Your task to perform on an android device: Open Android settings Image 0: 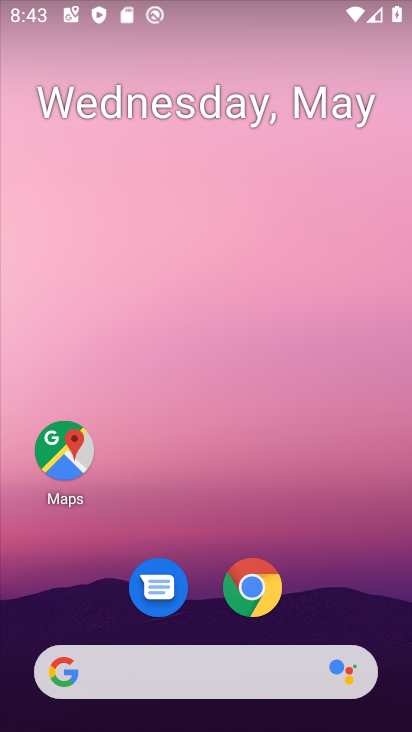
Step 0: drag from (381, 612) to (325, 74)
Your task to perform on an android device: Open Android settings Image 1: 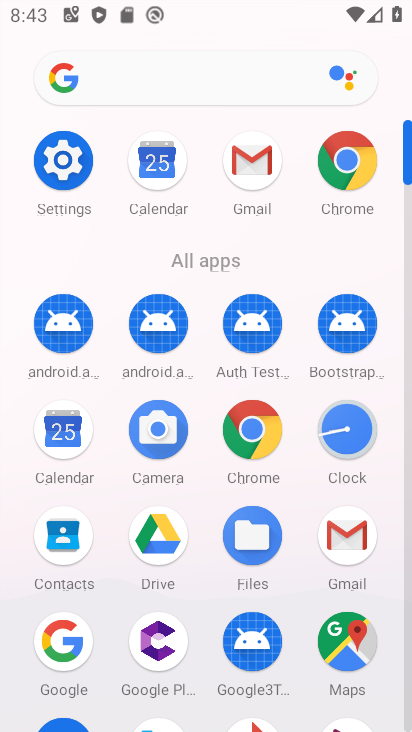
Step 1: click (409, 708)
Your task to perform on an android device: Open Android settings Image 2: 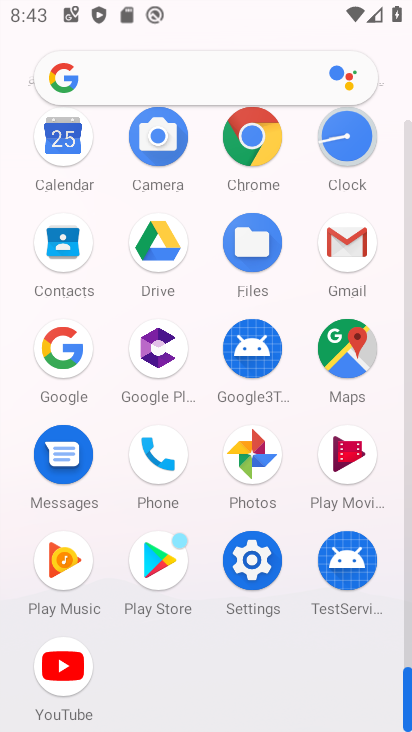
Step 2: click (253, 560)
Your task to perform on an android device: Open Android settings Image 3: 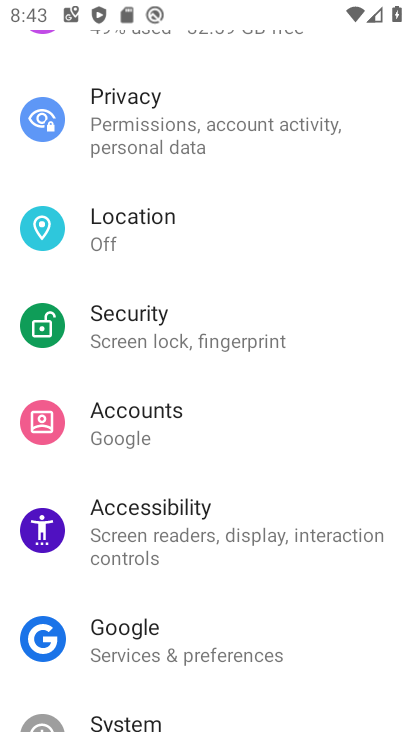
Step 3: drag from (303, 672) to (334, 139)
Your task to perform on an android device: Open Android settings Image 4: 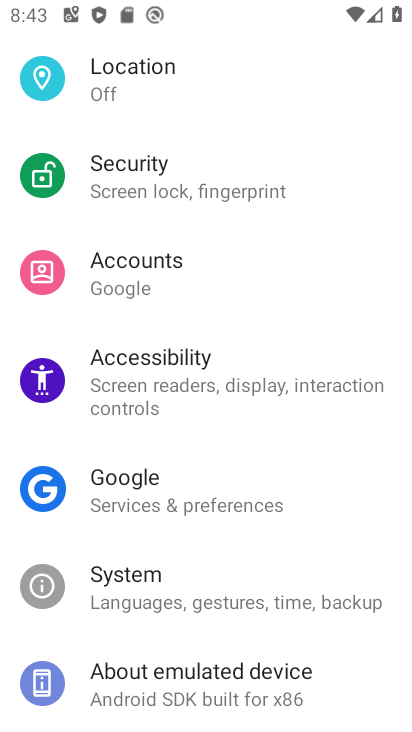
Step 4: click (144, 679)
Your task to perform on an android device: Open Android settings Image 5: 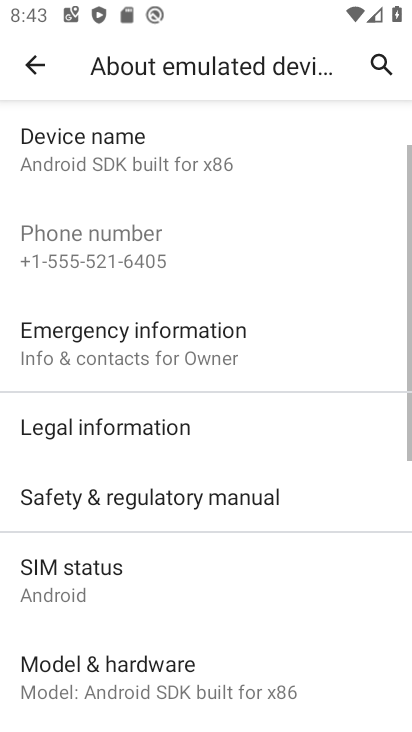
Step 5: task complete